Your task to perform on an android device: Open privacy settings Image 0: 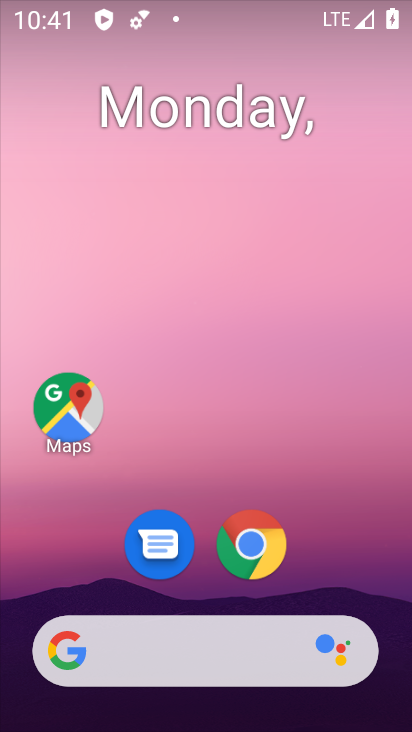
Step 0: drag from (395, 630) to (410, 179)
Your task to perform on an android device: Open privacy settings Image 1: 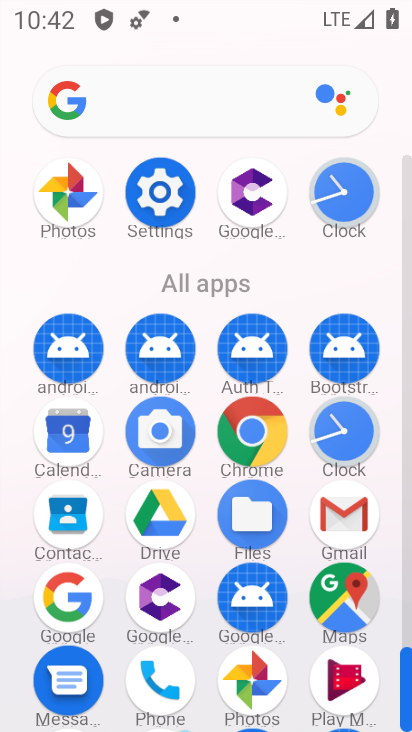
Step 1: click (152, 195)
Your task to perform on an android device: Open privacy settings Image 2: 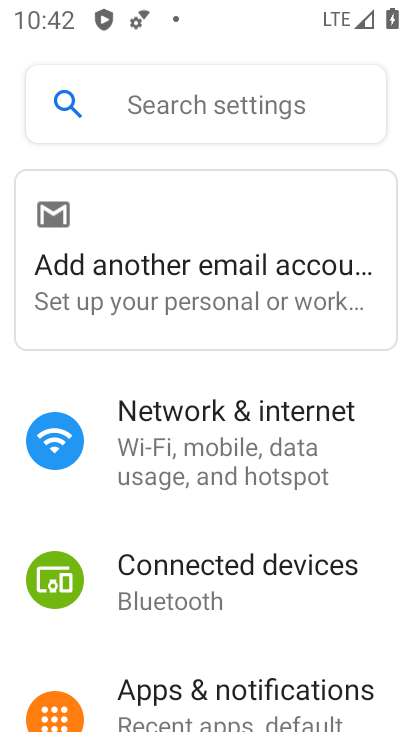
Step 2: drag from (363, 660) to (358, 378)
Your task to perform on an android device: Open privacy settings Image 3: 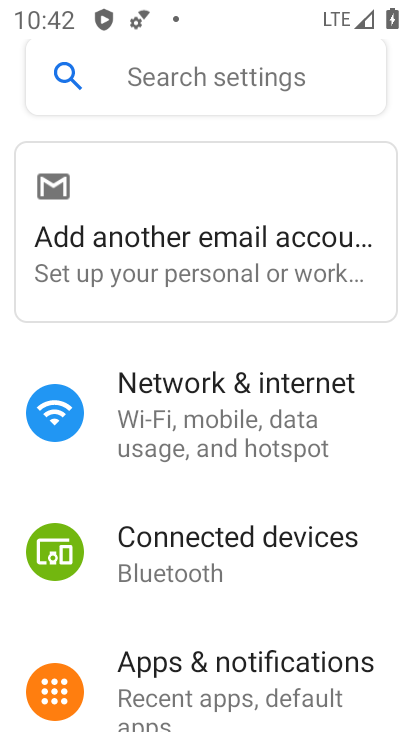
Step 3: drag from (390, 646) to (372, 424)
Your task to perform on an android device: Open privacy settings Image 4: 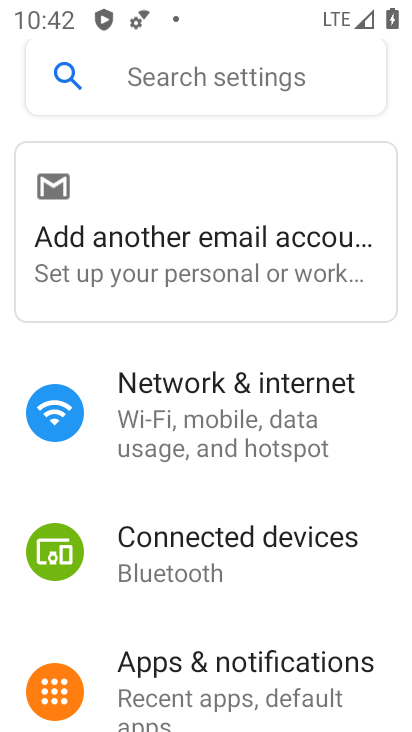
Step 4: drag from (386, 700) to (405, 376)
Your task to perform on an android device: Open privacy settings Image 5: 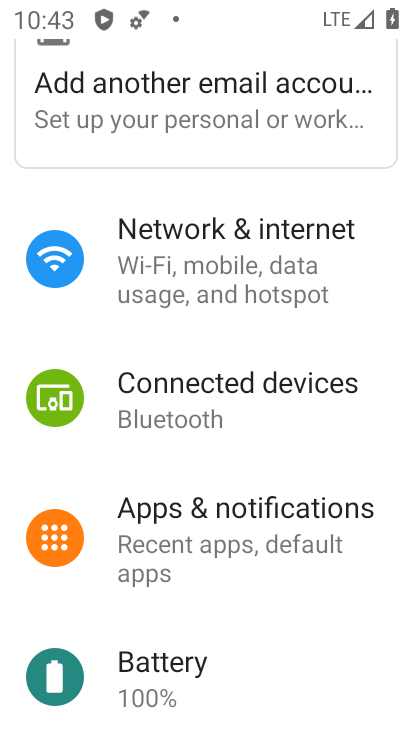
Step 5: drag from (317, 481) to (318, 396)
Your task to perform on an android device: Open privacy settings Image 6: 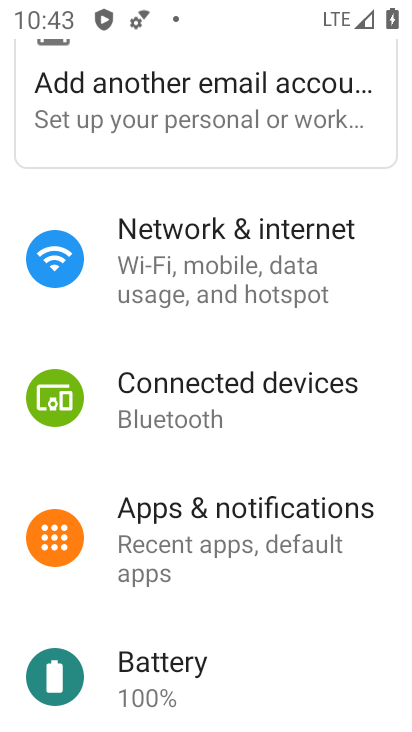
Step 6: drag from (324, 644) to (319, 363)
Your task to perform on an android device: Open privacy settings Image 7: 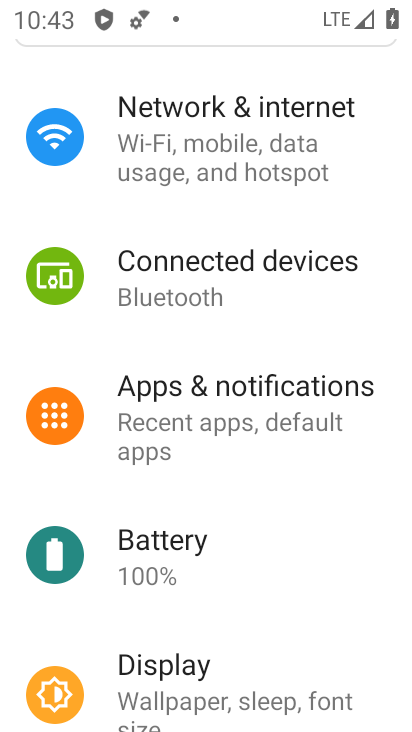
Step 7: drag from (354, 527) to (337, 286)
Your task to perform on an android device: Open privacy settings Image 8: 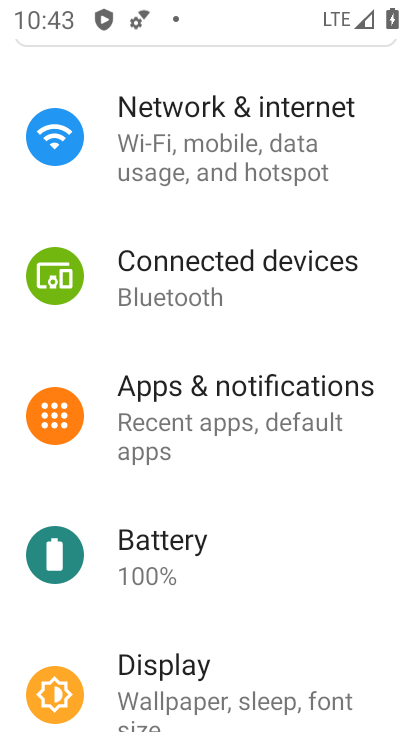
Step 8: drag from (387, 554) to (373, 238)
Your task to perform on an android device: Open privacy settings Image 9: 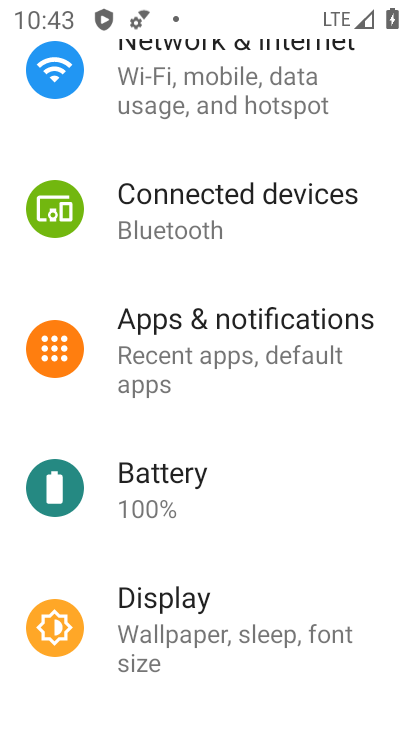
Step 9: drag from (385, 663) to (408, 275)
Your task to perform on an android device: Open privacy settings Image 10: 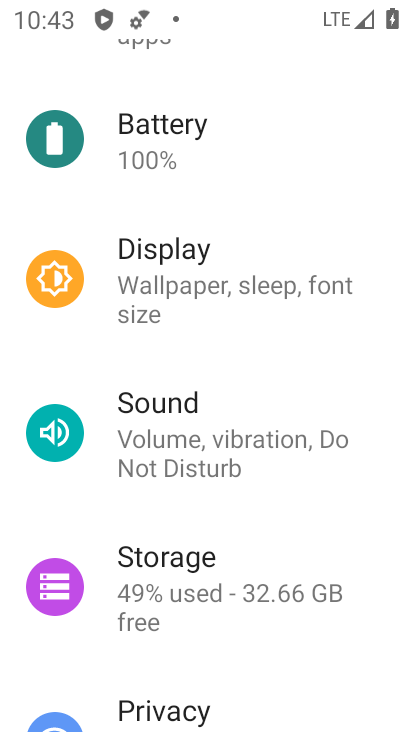
Step 10: drag from (338, 682) to (375, 270)
Your task to perform on an android device: Open privacy settings Image 11: 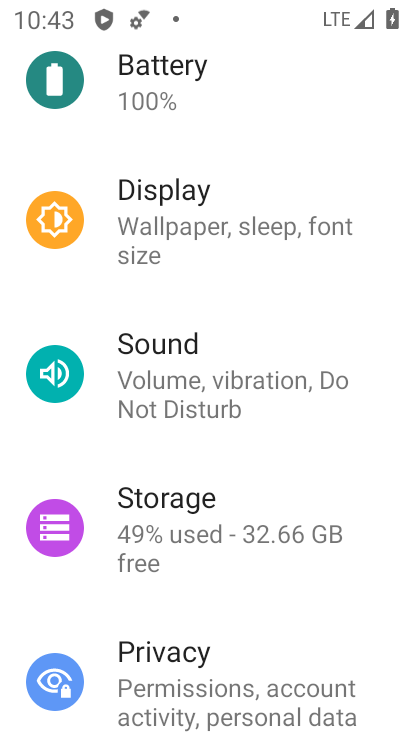
Step 11: click (148, 658)
Your task to perform on an android device: Open privacy settings Image 12: 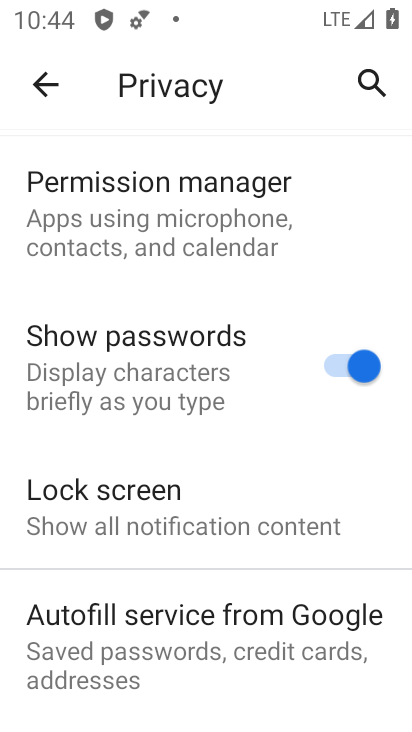
Step 12: task complete